Your task to perform on an android device: move a message to another label in the gmail app Image 0: 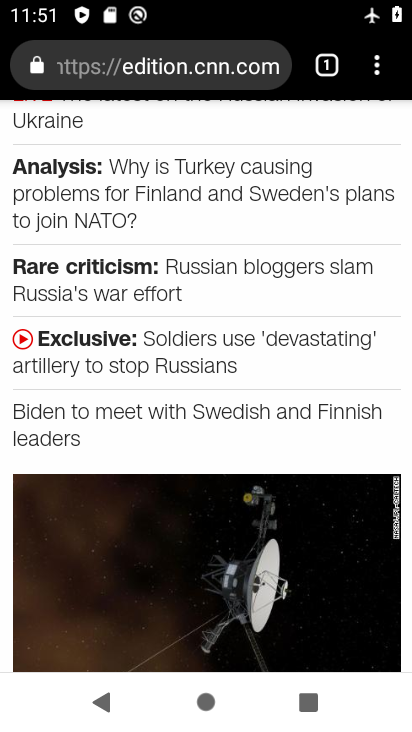
Step 0: drag from (206, 575) to (244, 61)
Your task to perform on an android device: move a message to another label in the gmail app Image 1: 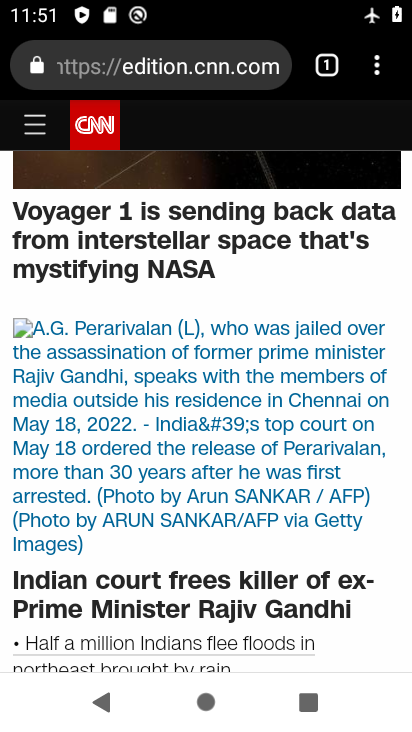
Step 1: press home button
Your task to perform on an android device: move a message to another label in the gmail app Image 2: 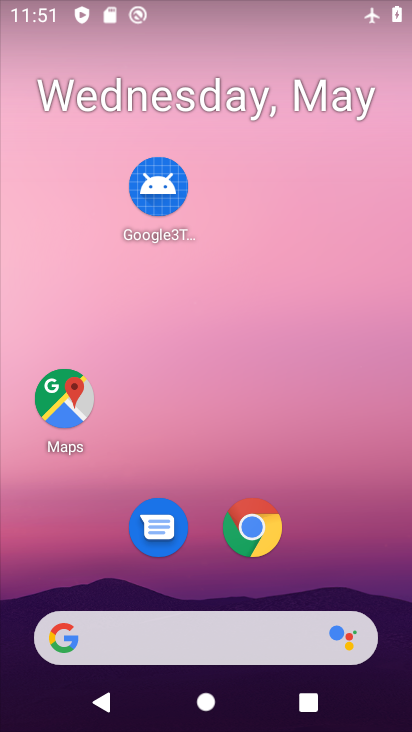
Step 2: drag from (204, 591) to (249, 120)
Your task to perform on an android device: move a message to another label in the gmail app Image 3: 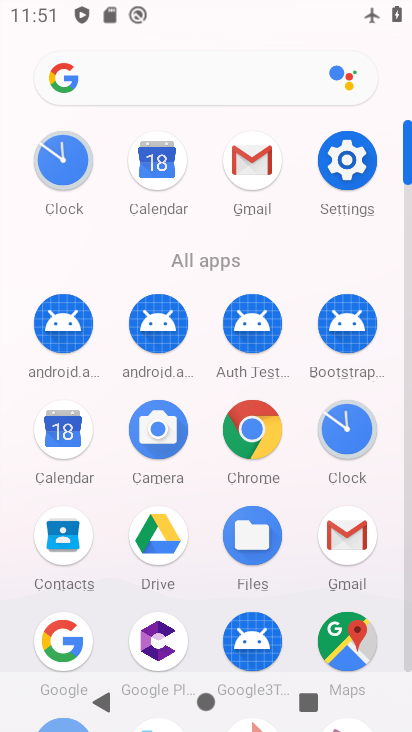
Step 3: click (256, 154)
Your task to perform on an android device: move a message to another label in the gmail app Image 4: 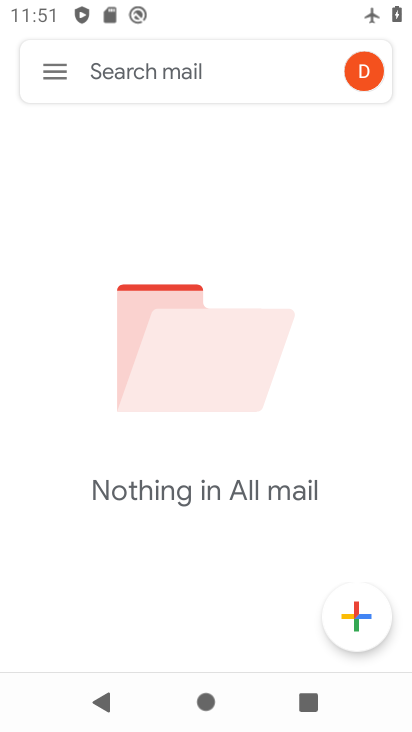
Step 4: task complete